Your task to perform on an android device: toggle priority inbox in the gmail app Image 0: 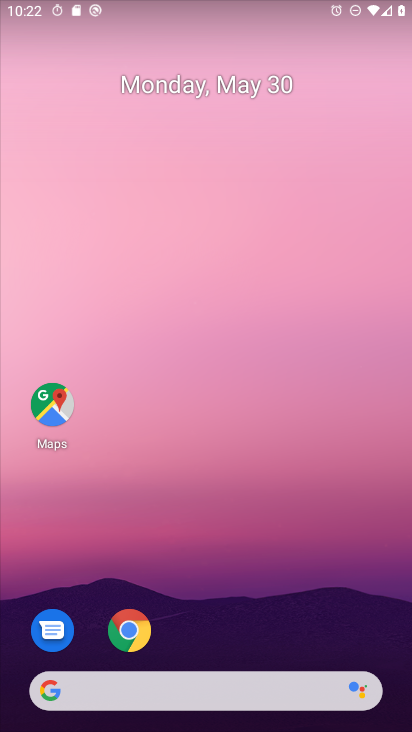
Step 0: drag from (329, 642) to (274, 29)
Your task to perform on an android device: toggle priority inbox in the gmail app Image 1: 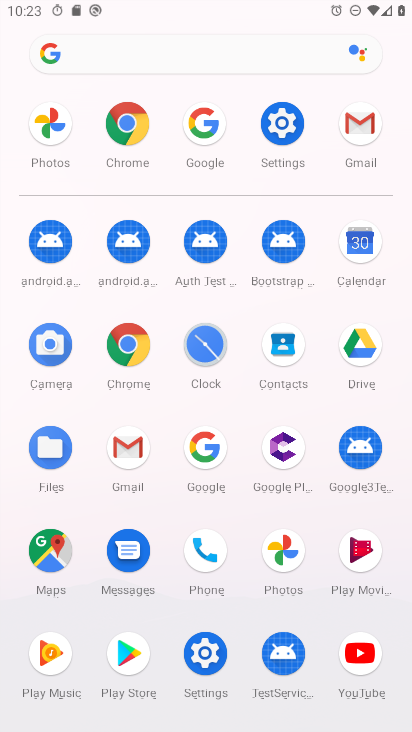
Step 1: click (124, 453)
Your task to perform on an android device: toggle priority inbox in the gmail app Image 2: 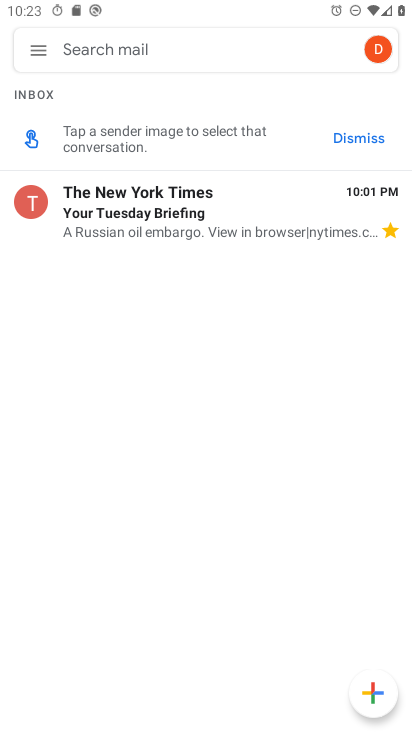
Step 2: click (41, 52)
Your task to perform on an android device: toggle priority inbox in the gmail app Image 3: 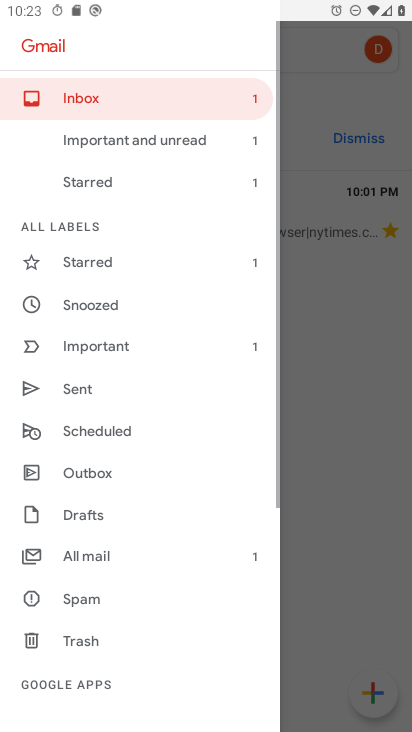
Step 3: drag from (113, 676) to (95, 103)
Your task to perform on an android device: toggle priority inbox in the gmail app Image 4: 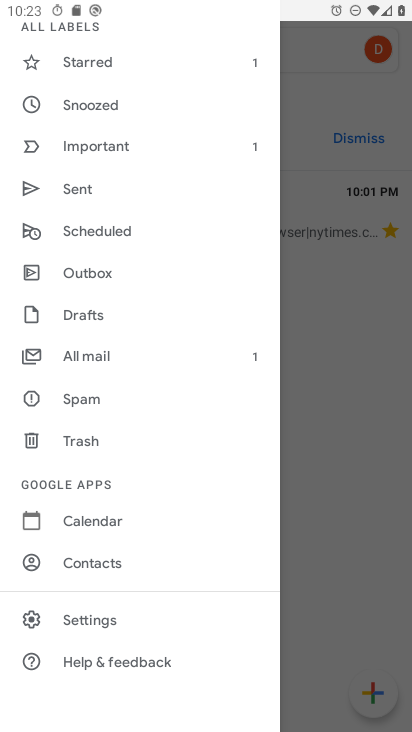
Step 4: click (107, 627)
Your task to perform on an android device: toggle priority inbox in the gmail app Image 5: 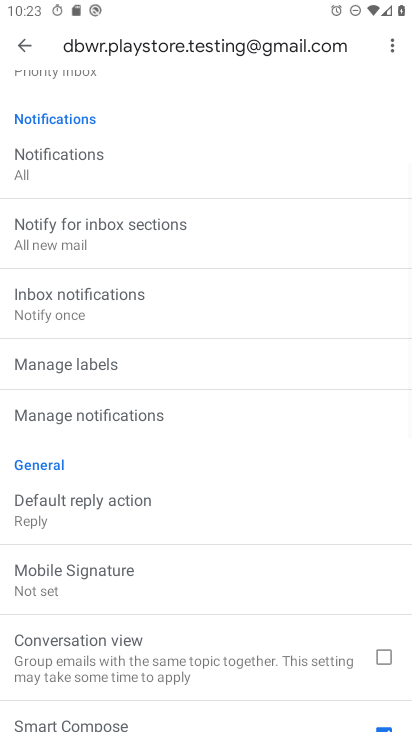
Step 5: drag from (86, 176) to (154, 698)
Your task to perform on an android device: toggle priority inbox in the gmail app Image 6: 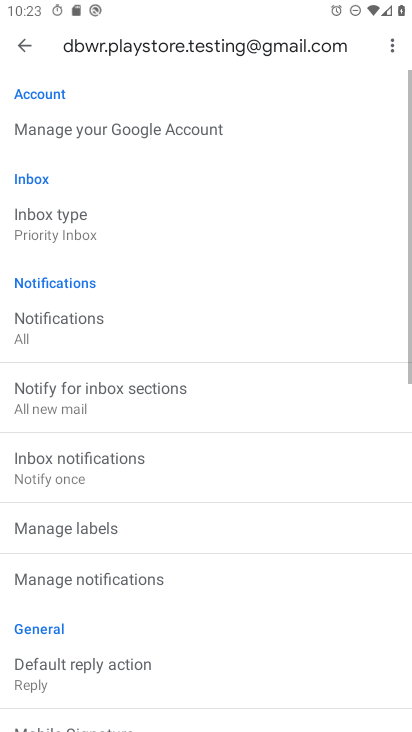
Step 6: click (76, 218)
Your task to perform on an android device: toggle priority inbox in the gmail app Image 7: 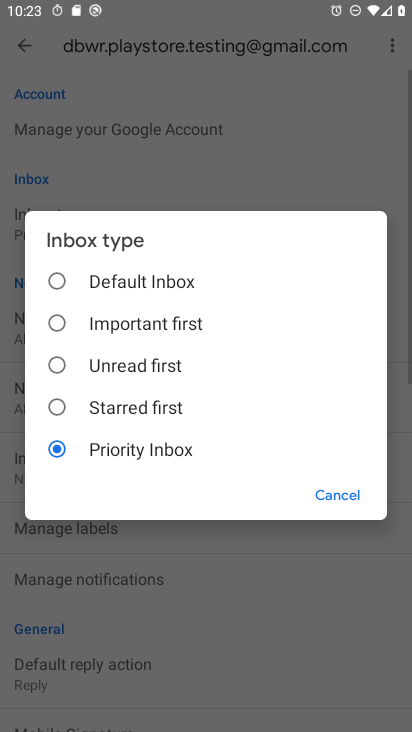
Step 7: click (158, 290)
Your task to perform on an android device: toggle priority inbox in the gmail app Image 8: 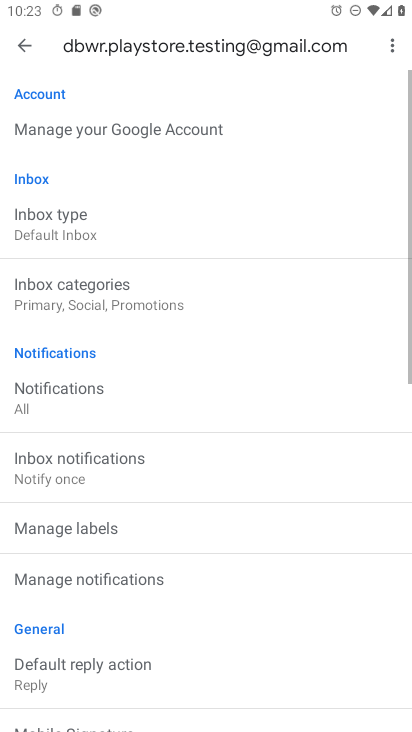
Step 8: task complete